Your task to perform on an android device: turn on bluetooth scan Image 0: 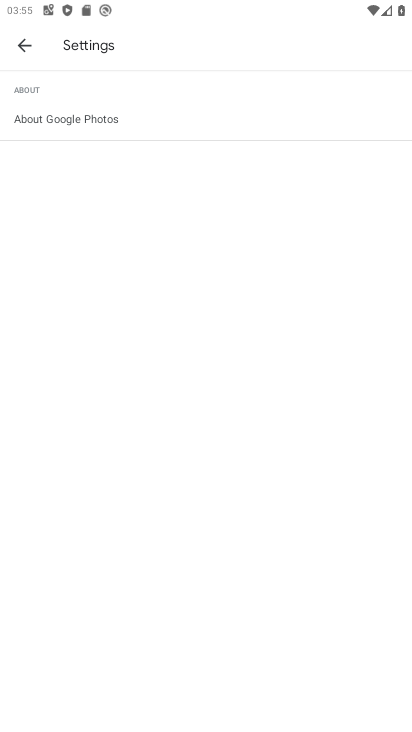
Step 0: press home button
Your task to perform on an android device: turn on bluetooth scan Image 1: 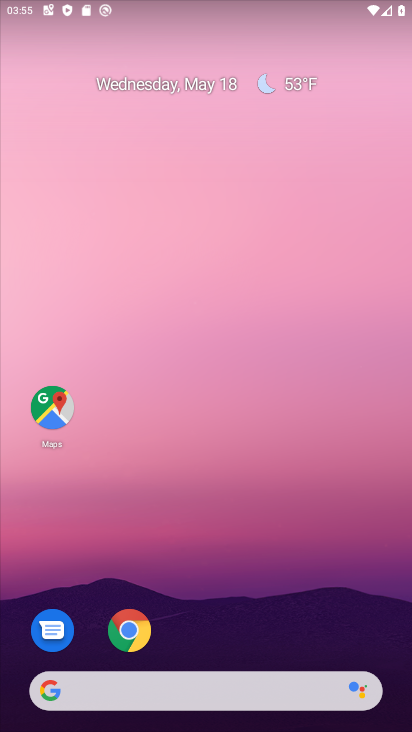
Step 1: drag from (204, 641) to (204, 172)
Your task to perform on an android device: turn on bluetooth scan Image 2: 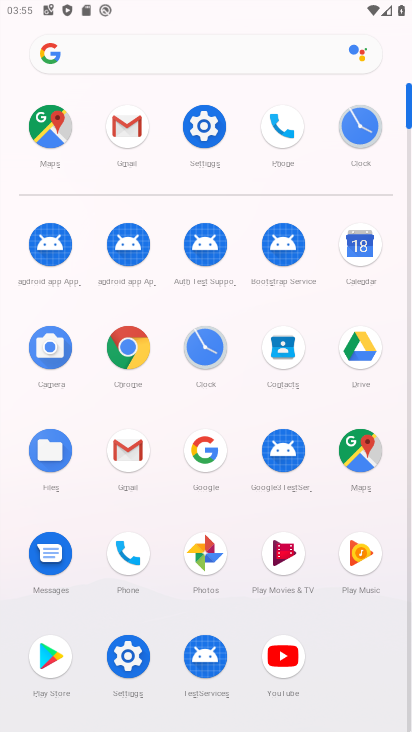
Step 2: click (196, 129)
Your task to perform on an android device: turn on bluetooth scan Image 3: 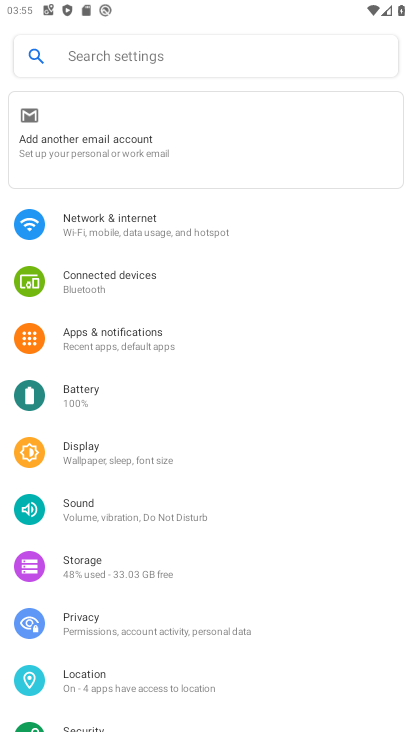
Step 3: click (98, 680)
Your task to perform on an android device: turn on bluetooth scan Image 4: 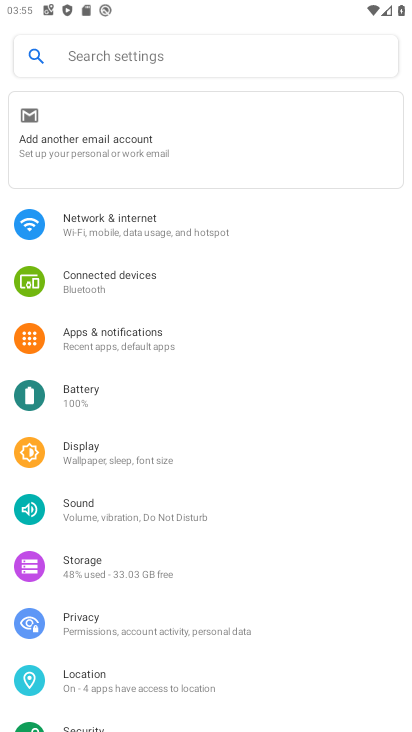
Step 4: click (83, 671)
Your task to perform on an android device: turn on bluetooth scan Image 5: 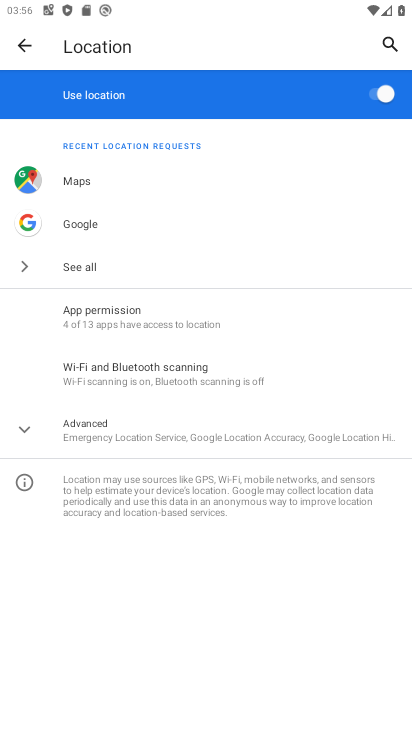
Step 5: click (127, 371)
Your task to perform on an android device: turn on bluetooth scan Image 6: 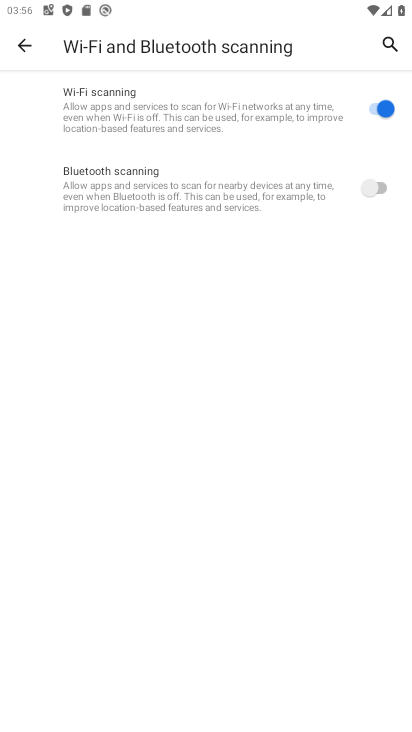
Step 6: click (388, 188)
Your task to perform on an android device: turn on bluetooth scan Image 7: 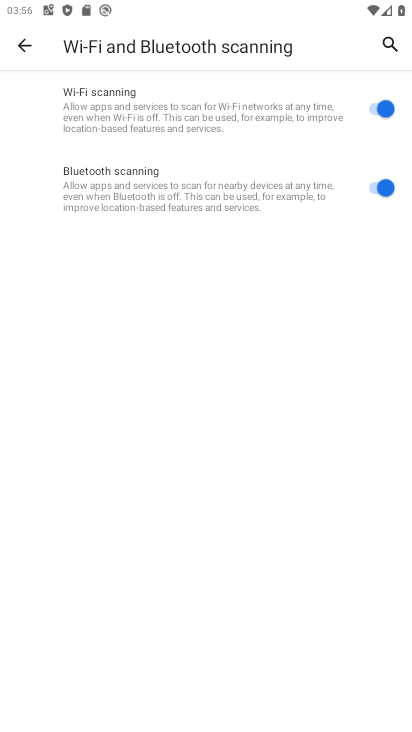
Step 7: task complete